Your task to perform on an android device: manage bookmarks in the chrome app Image 0: 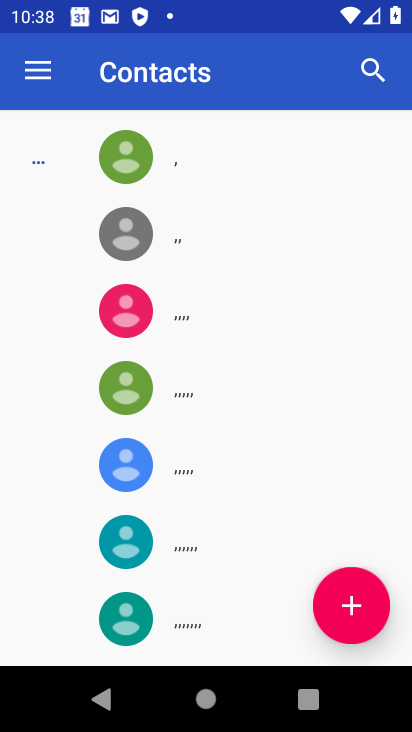
Step 0: press home button
Your task to perform on an android device: manage bookmarks in the chrome app Image 1: 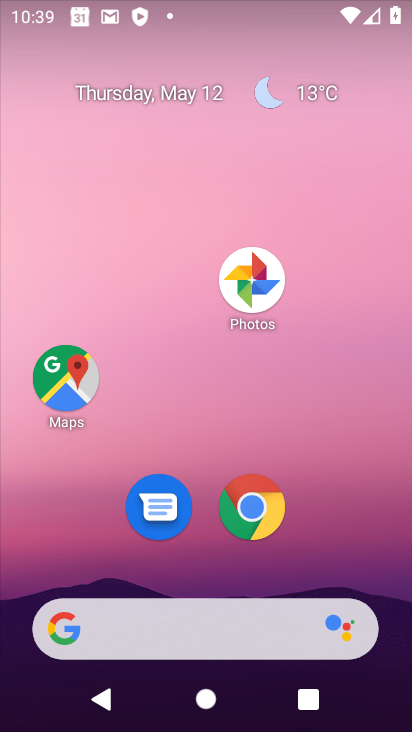
Step 1: click (268, 510)
Your task to perform on an android device: manage bookmarks in the chrome app Image 2: 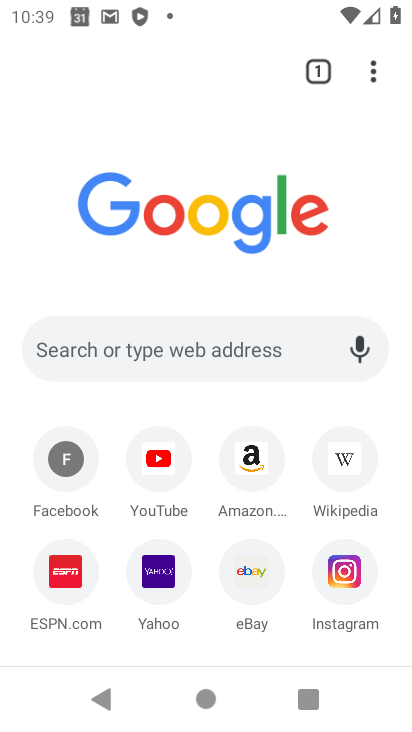
Step 2: task complete